Your task to perform on an android device: toggle translation in the chrome app Image 0: 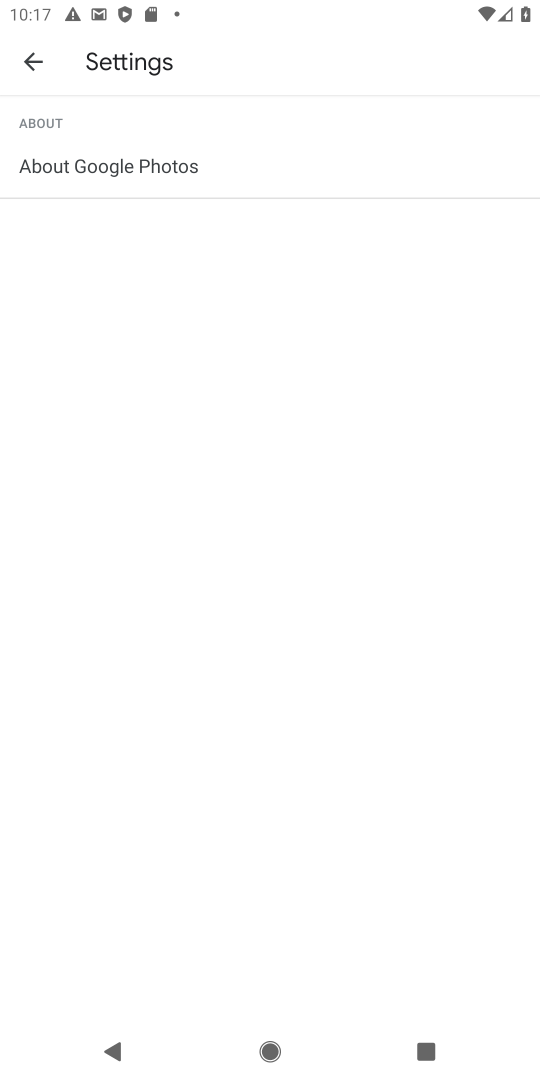
Step 0: press home button
Your task to perform on an android device: toggle translation in the chrome app Image 1: 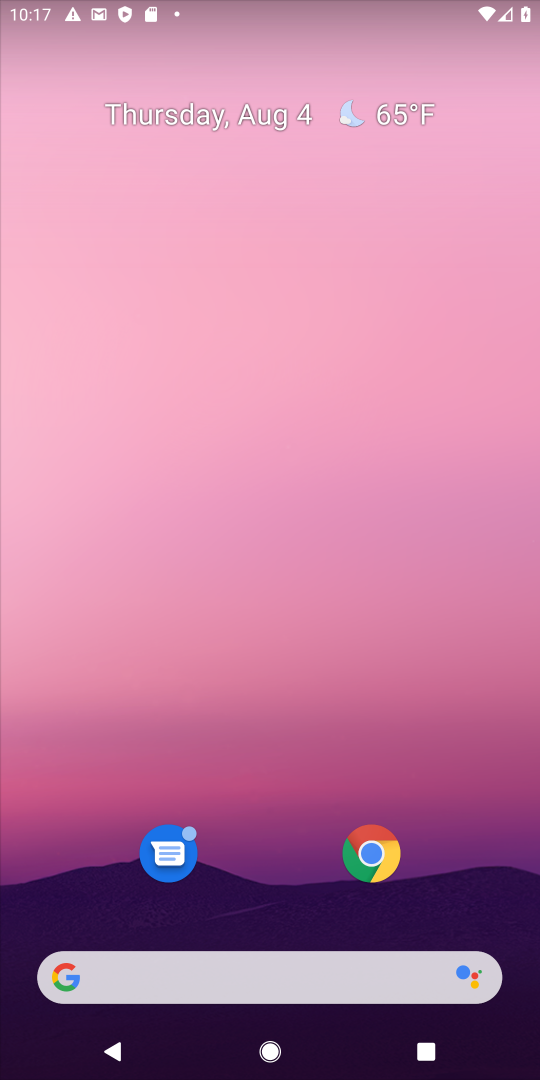
Step 1: drag from (326, 914) to (505, 468)
Your task to perform on an android device: toggle translation in the chrome app Image 2: 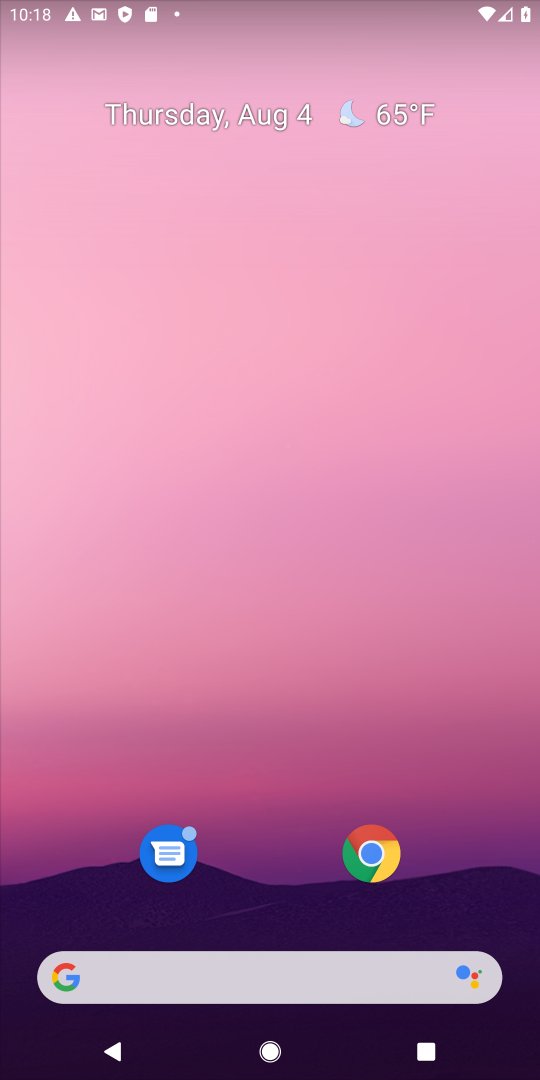
Step 2: drag from (291, 934) to (403, 15)
Your task to perform on an android device: toggle translation in the chrome app Image 3: 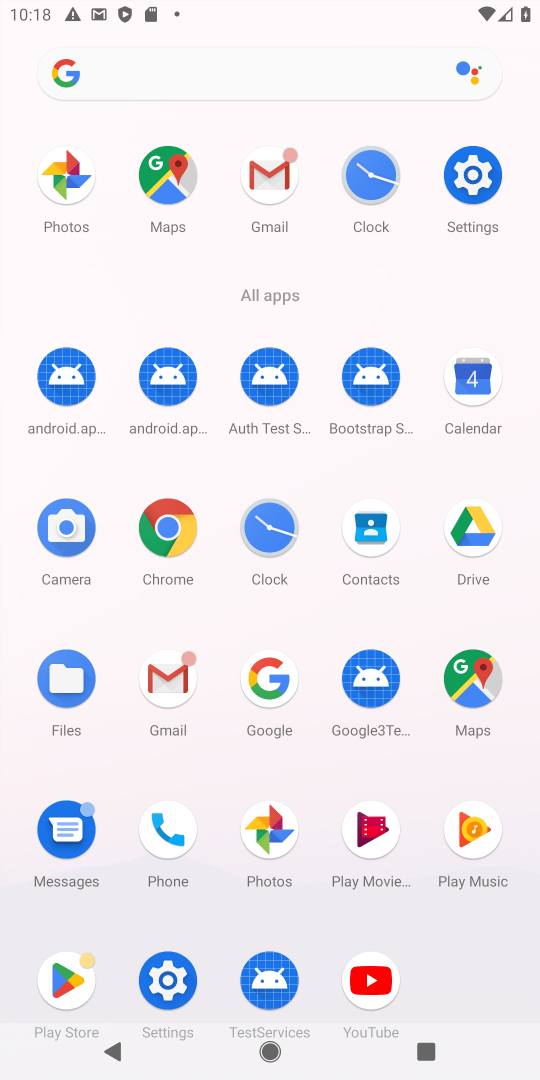
Step 3: click (162, 544)
Your task to perform on an android device: toggle translation in the chrome app Image 4: 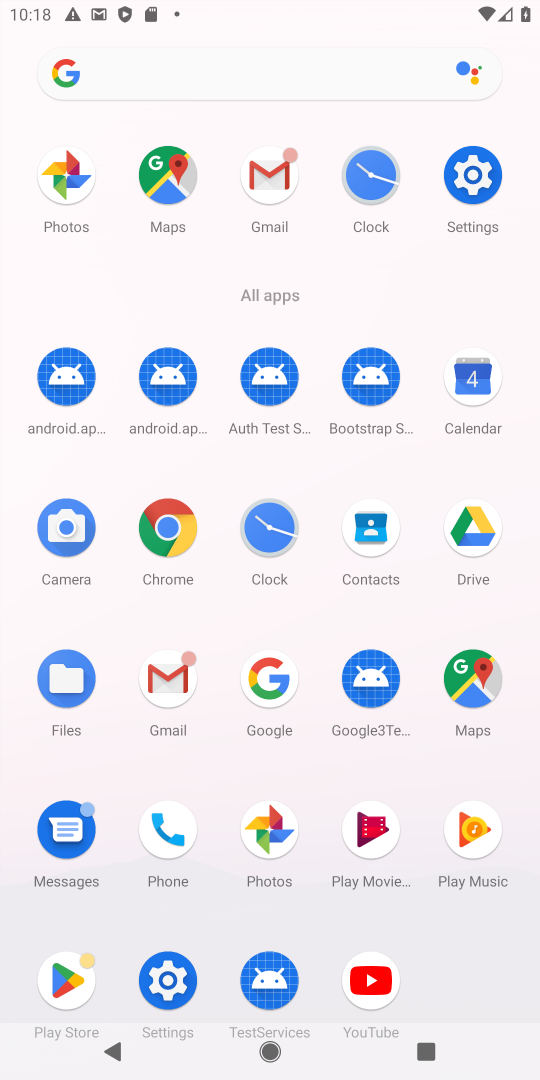
Step 4: click (161, 541)
Your task to perform on an android device: toggle translation in the chrome app Image 5: 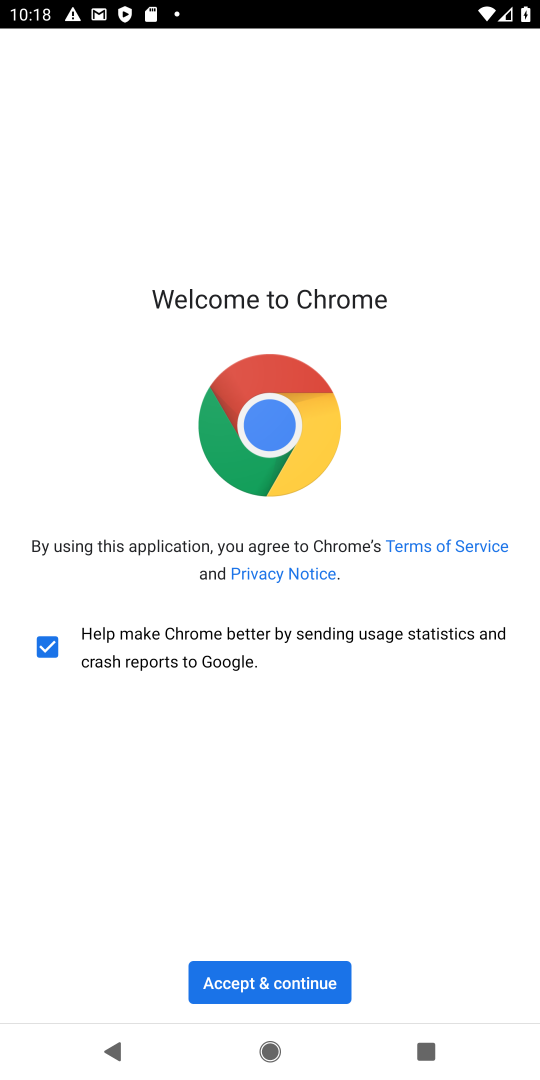
Step 5: click (277, 991)
Your task to perform on an android device: toggle translation in the chrome app Image 6: 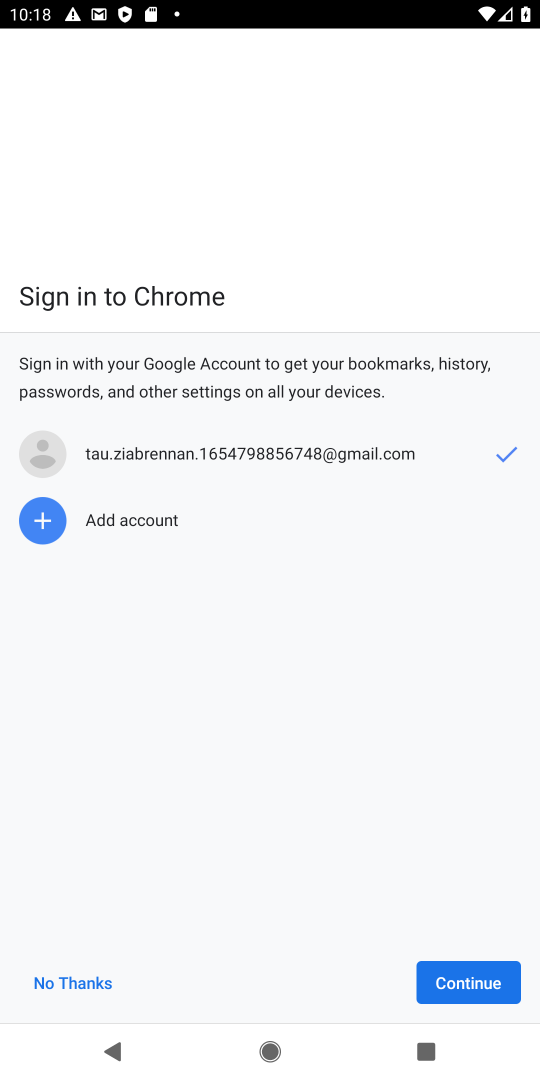
Step 6: click (461, 970)
Your task to perform on an android device: toggle translation in the chrome app Image 7: 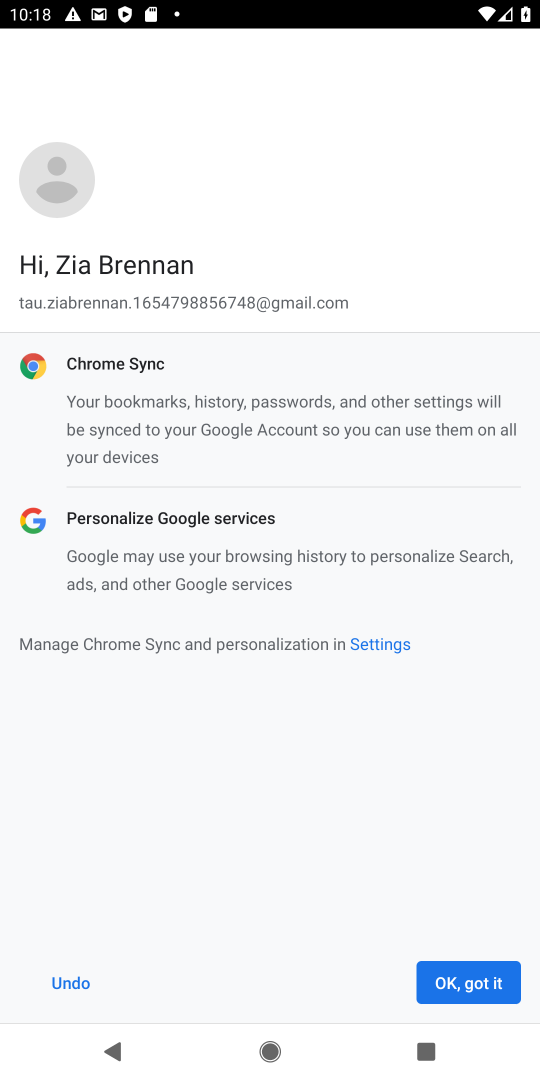
Step 7: click (466, 966)
Your task to perform on an android device: toggle translation in the chrome app Image 8: 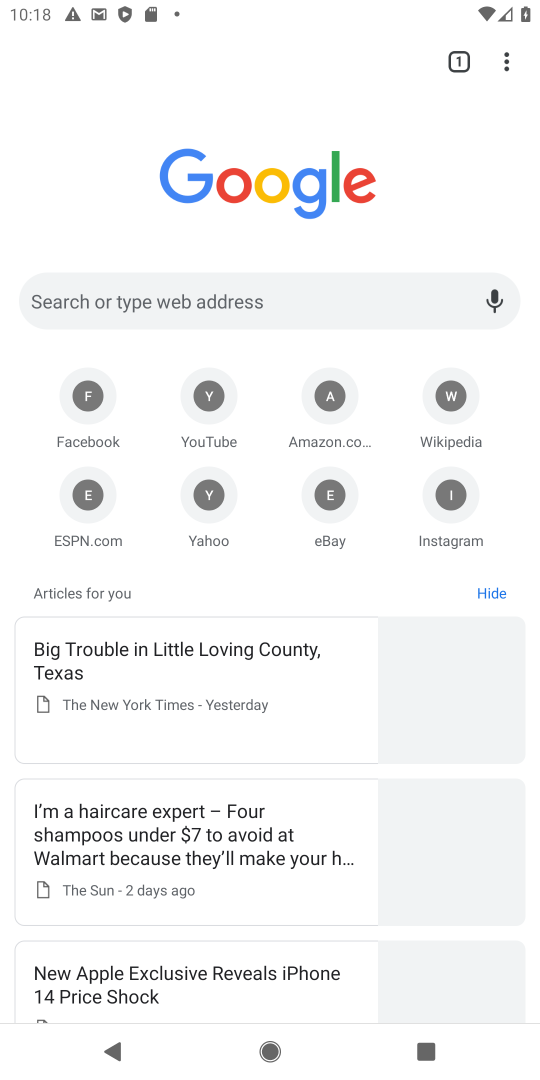
Step 8: drag from (498, 59) to (265, 509)
Your task to perform on an android device: toggle translation in the chrome app Image 9: 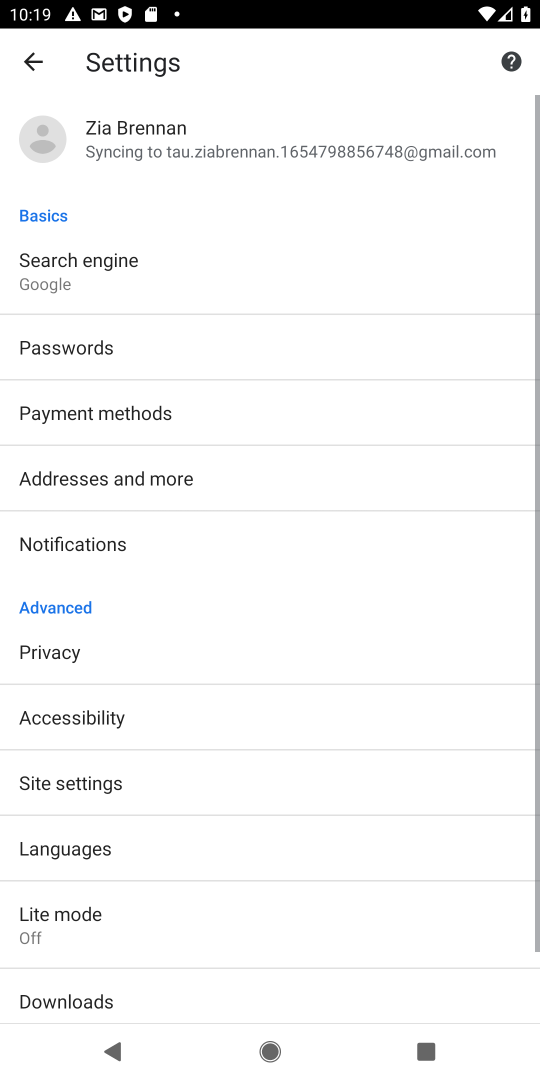
Step 9: click (207, 875)
Your task to perform on an android device: toggle translation in the chrome app Image 10: 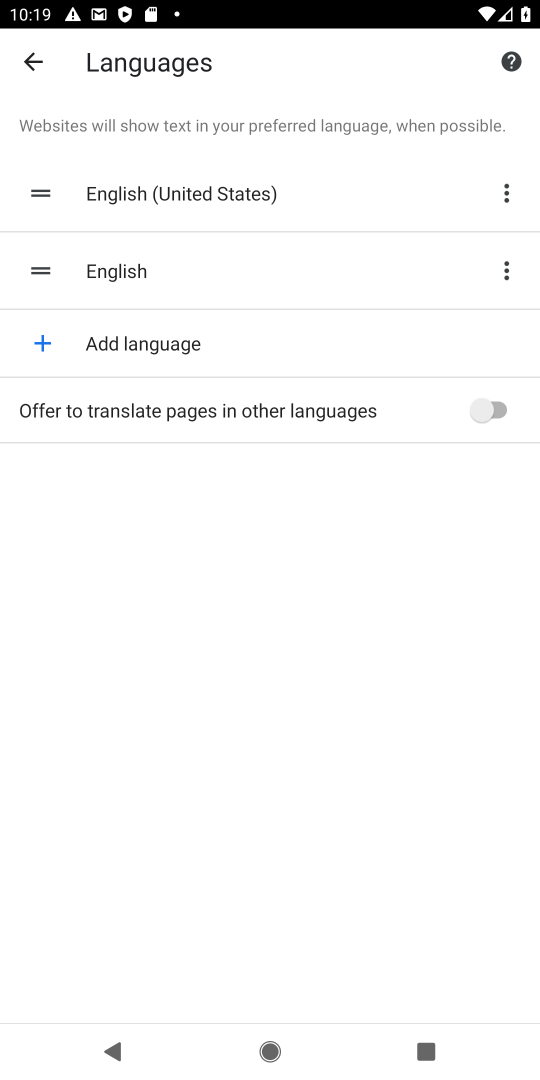
Step 10: click (505, 413)
Your task to perform on an android device: toggle translation in the chrome app Image 11: 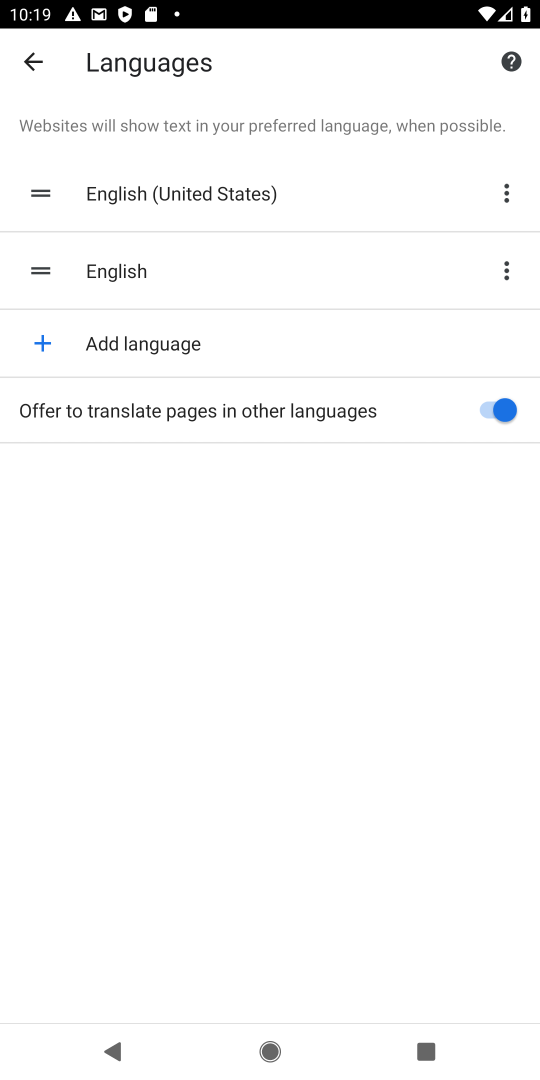
Step 11: task complete